Your task to perform on an android device: clear all cookies in the chrome app Image 0: 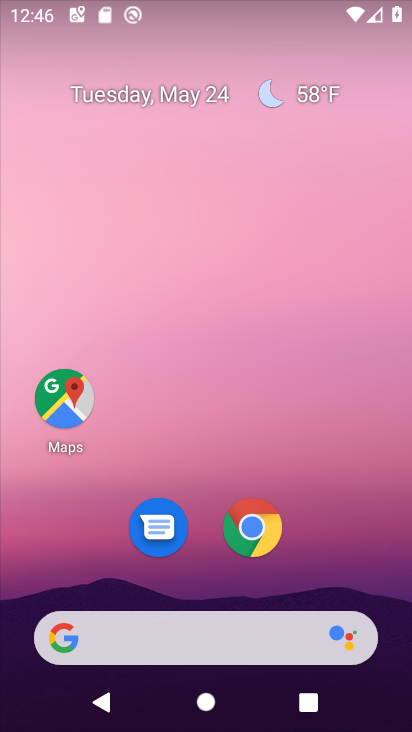
Step 0: click (255, 533)
Your task to perform on an android device: clear all cookies in the chrome app Image 1: 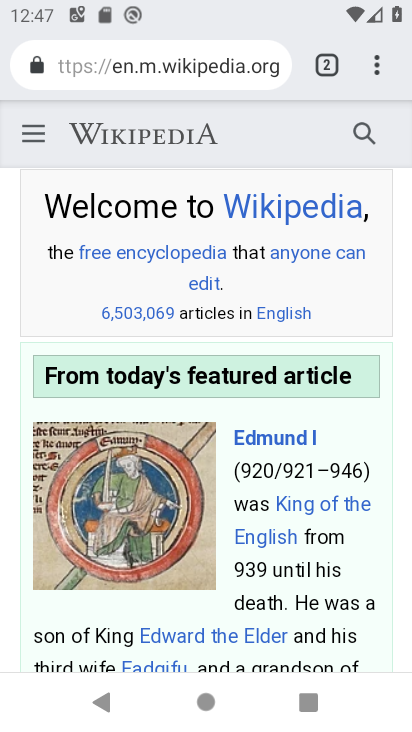
Step 1: click (374, 82)
Your task to perform on an android device: clear all cookies in the chrome app Image 2: 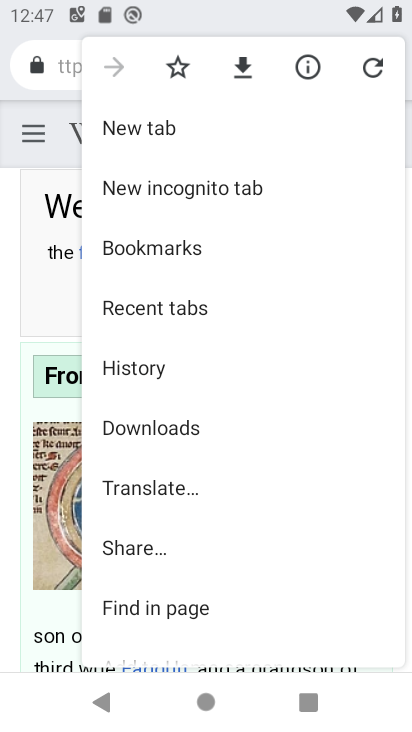
Step 2: click (229, 376)
Your task to perform on an android device: clear all cookies in the chrome app Image 3: 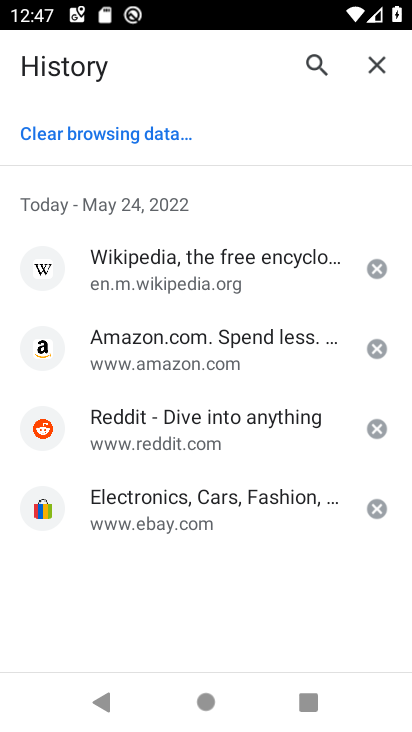
Step 3: click (165, 129)
Your task to perform on an android device: clear all cookies in the chrome app Image 4: 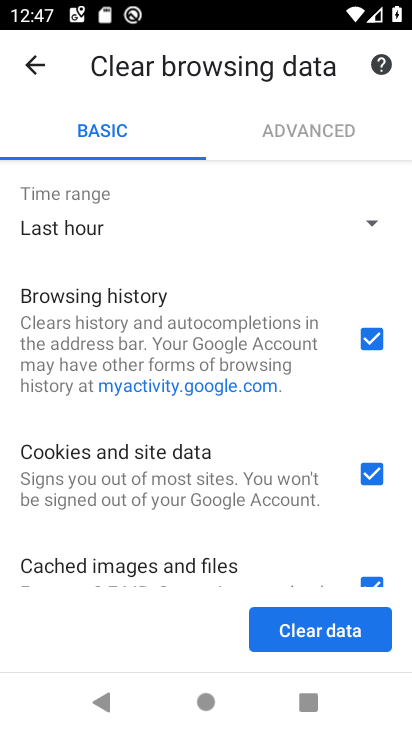
Step 4: click (376, 581)
Your task to perform on an android device: clear all cookies in the chrome app Image 5: 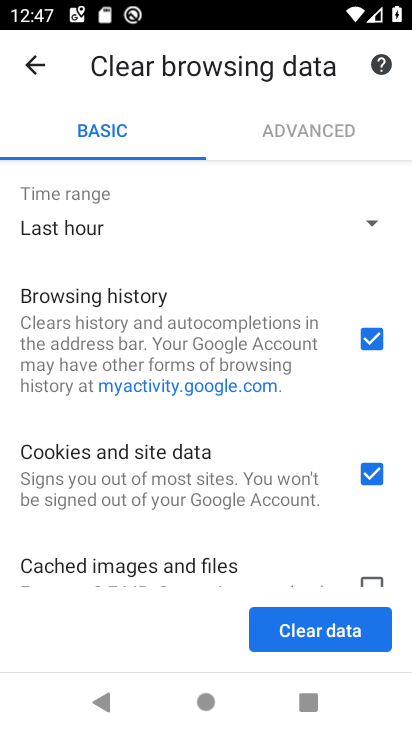
Step 5: click (375, 475)
Your task to perform on an android device: clear all cookies in the chrome app Image 6: 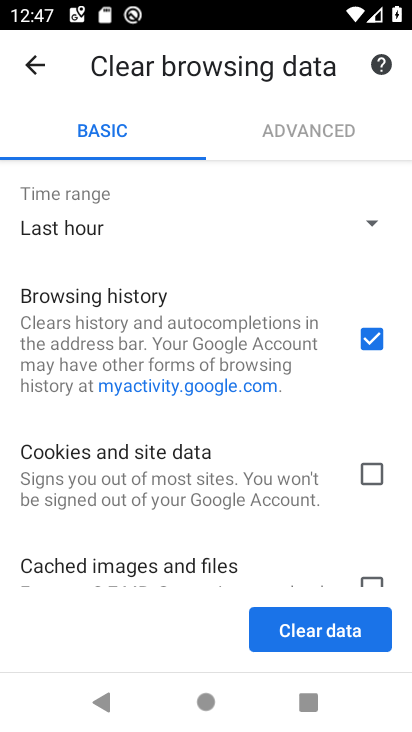
Step 6: click (378, 341)
Your task to perform on an android device: clear all cookies in the chrome app Image 7: 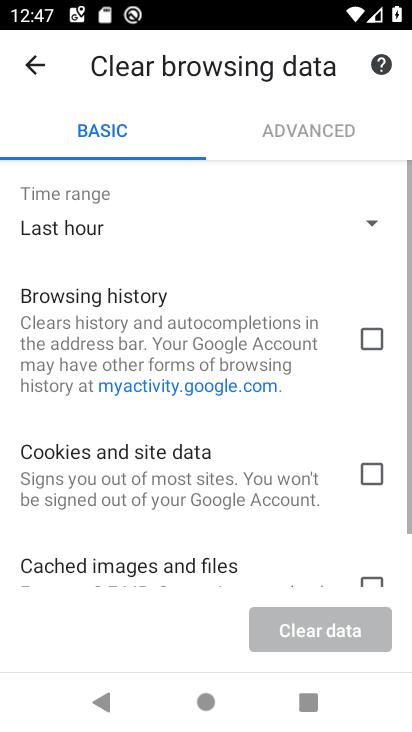
Step 7: click (375, 473)
Your task to perform on an android device: clear all cookies in the chrome app Image 8: 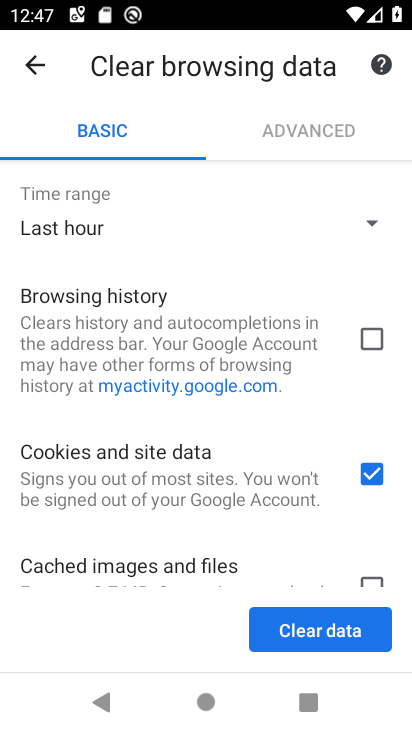
Step 8: task complete